Your task to perform on an android device: Search for sushi restaurants on Maps Image 0: 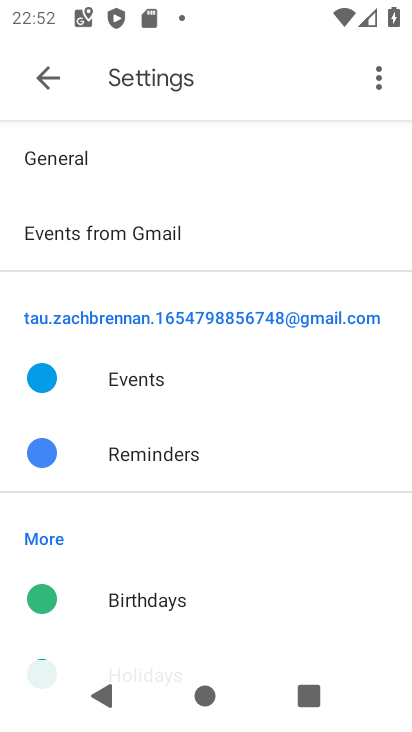
Step 0: press home button
Your task to perform on an android device: Search for sushi restaurants on Maps Image 1: 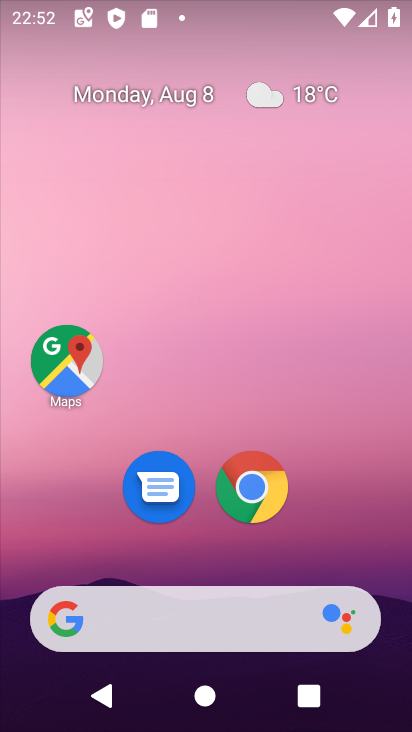
Step 1: drag from (201, 544) to (203, 73)
Your task to perform on an android device: Search for sushi restaurants on Maps Image 2: 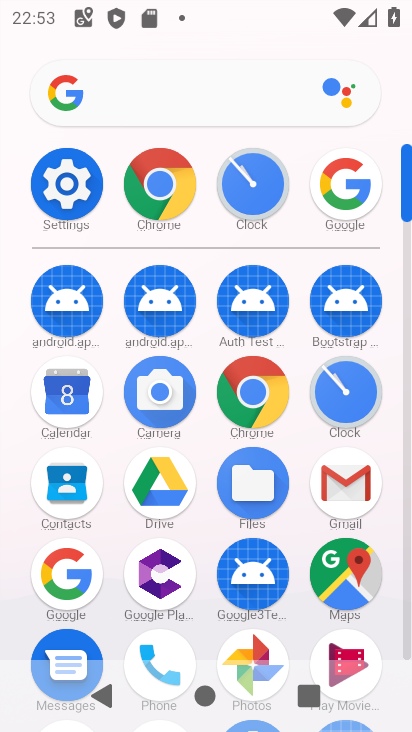
Step 2: click (340, 564)
Your task to perform on an android device: Search for sushi restaurants on Maps Image 3: 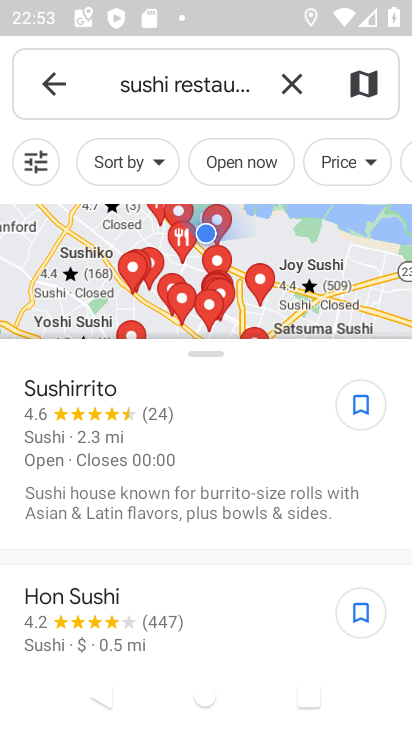
Step 3: task complete